Your task to perform on an android device: move an email to a new category in the gmail app Image 0: 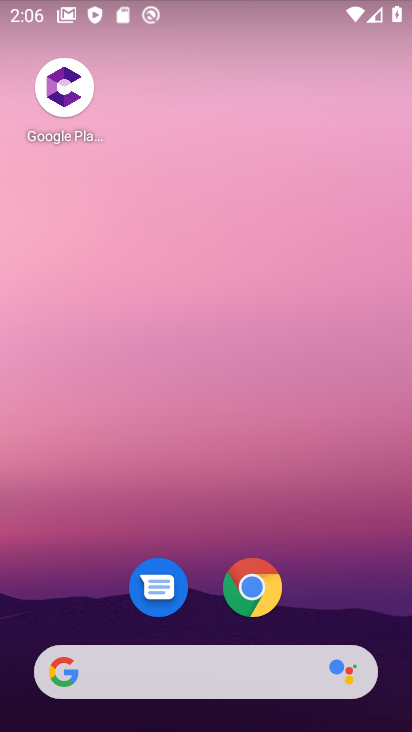
Step 0: drag from (235, 613) to (237, 226)
Your task to perform on an android device: move an email to a new category in the gmail app Image 1: 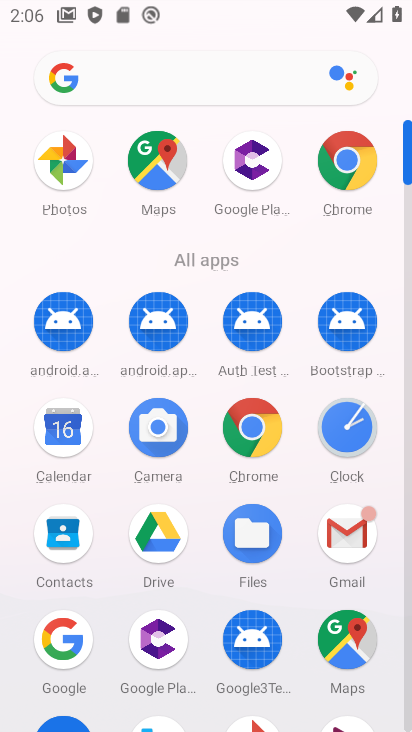
Step 1: click (340, 524)
Your task to perform on an android device: move an email to a new category in the gmail app Image 2: 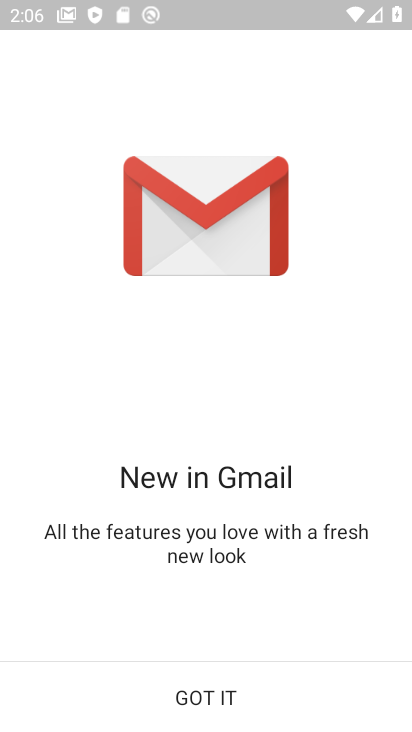
Step 2: click (193, 701)
Your task to perform on an android device: move an email to a new category in the gmail app Image 3: 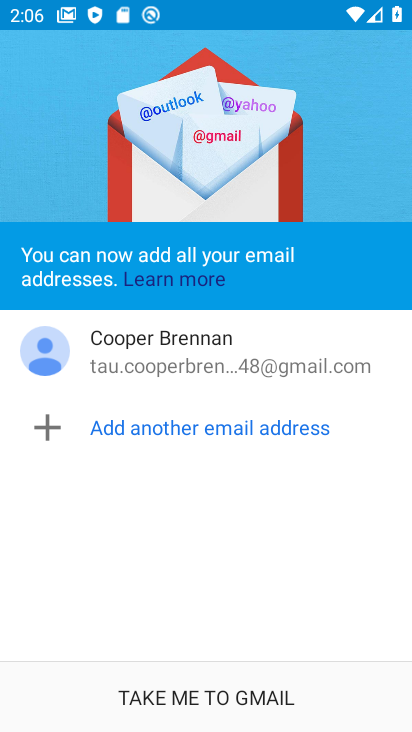
Step 3: click (210, 704)
Your task to perform on an android device: move an email to a new category in the gmail app Image 4: 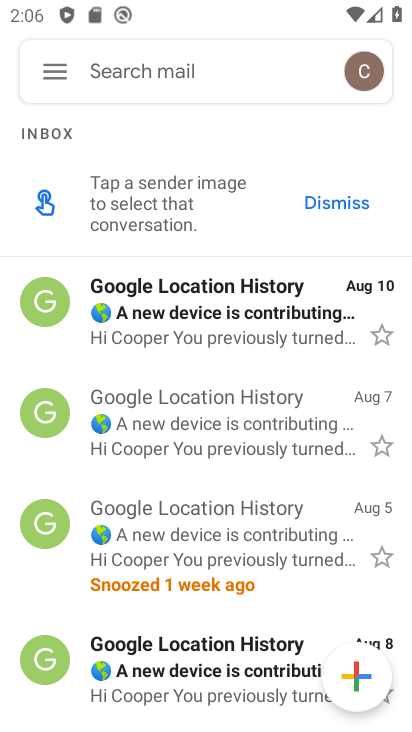
Step 4: click (149, 312)
Your task to perform on an android device: move an email to a new category in the gmail app Image 5: 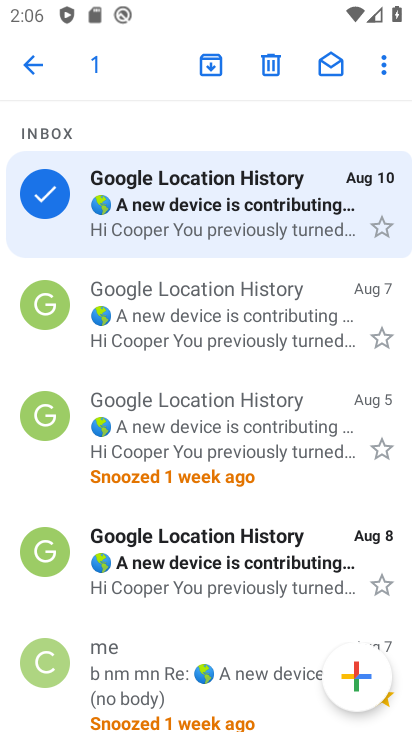
Step 5: click (380, 72)
Your task to perform on an android device: move an email to a new category in the gmail app Image 6: 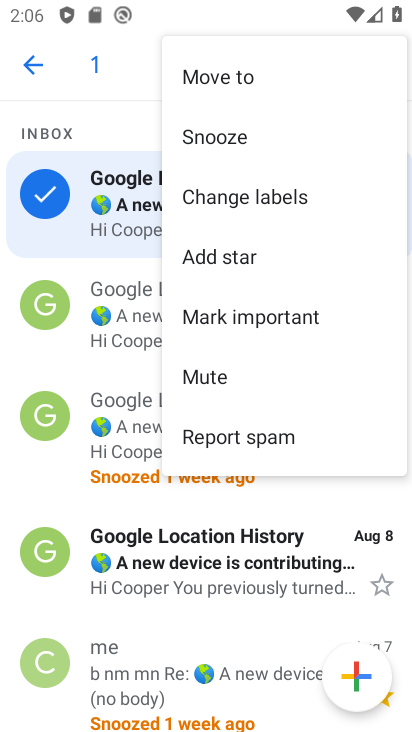
Step 6: click (248, 78)
Your task to perform on an android device: move an email to a new category in the gmail app Image 7: 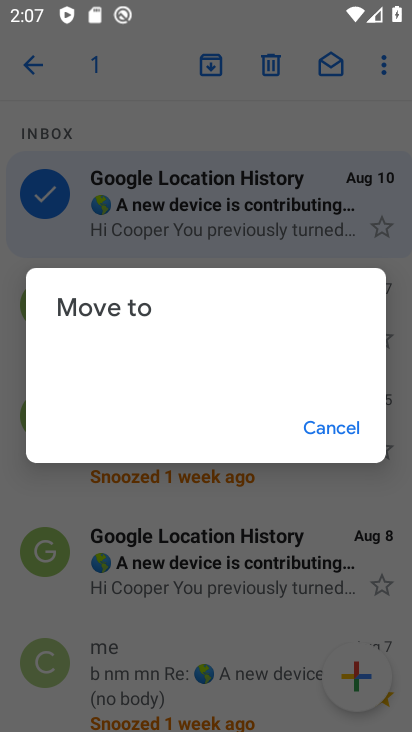
Step 7: task complete